Your task to perform on an android device: manage bookmarks in the chrome app Image 0: 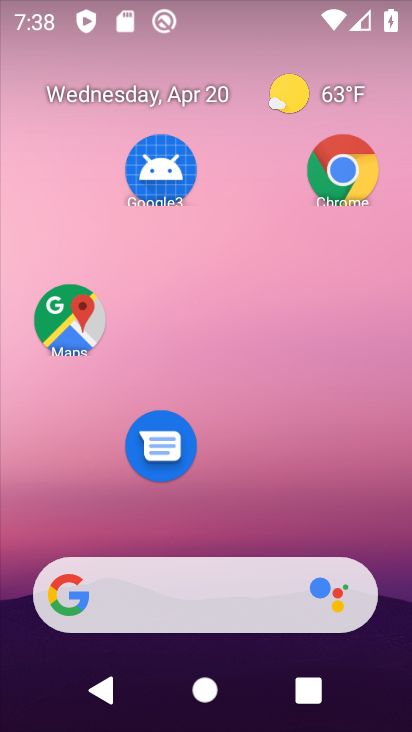
Step 0: click (341, 170)
Your task to perform on an android device: manage bookmarks in the chrome app Image 1: 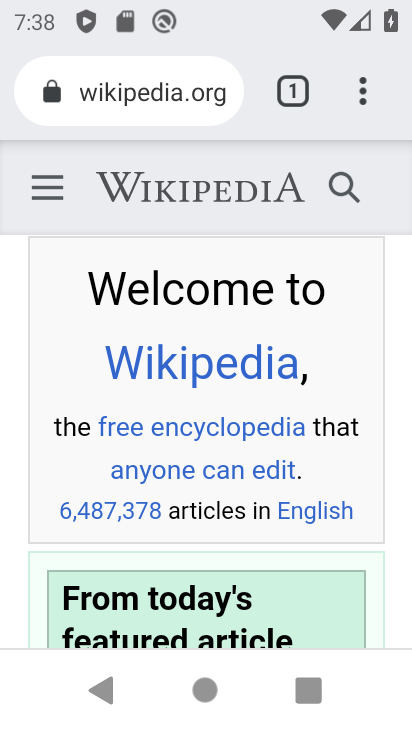
Step 1: click (364, 97)
Your task to perform on an android device: manage bookmarks in the chrome app Image 2: 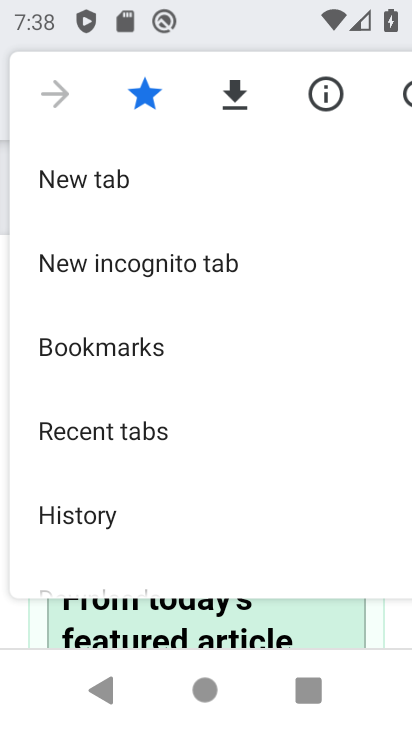
Step 2: click (100, 350)
Your task to perform on an android device: manage bookmarks in the chrome app Image 3: 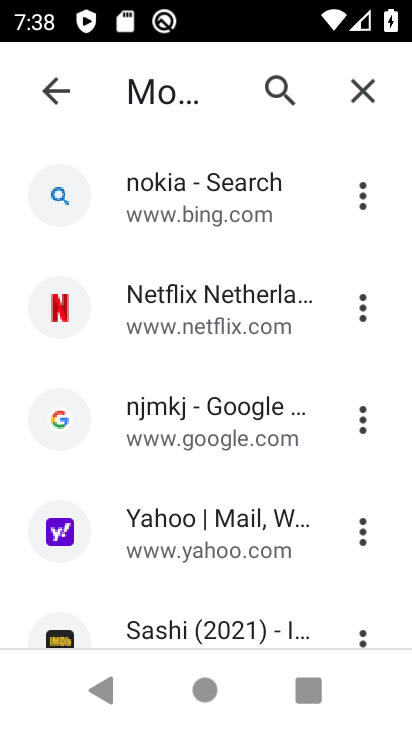
Step 3: click (365, 193)
Your task to perform on an android device: manage bookmarks in the chrome app Image 4: 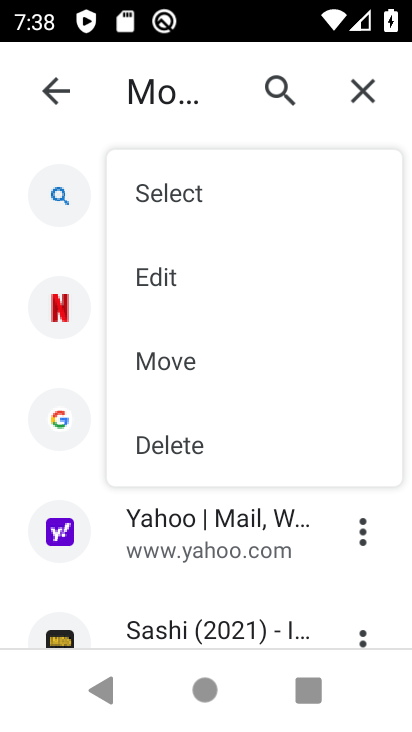
Step 4: click (173, 274)
Your task to perform on an android device: manage bookmarks in the chrome app Image 5: 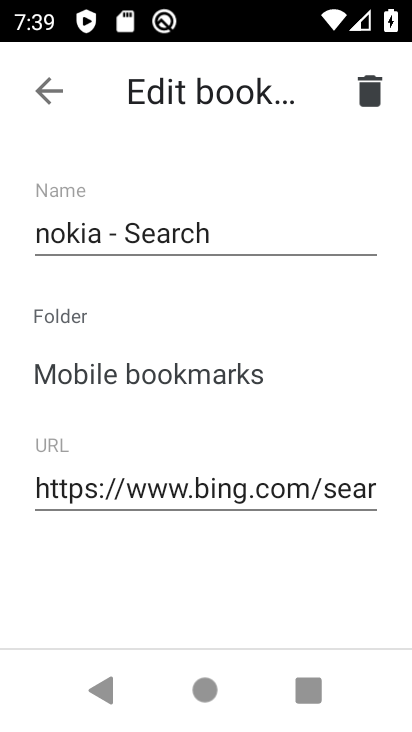
Step 5: task complete